Your task to perform on an android device: Go to CNN.com Image 0: 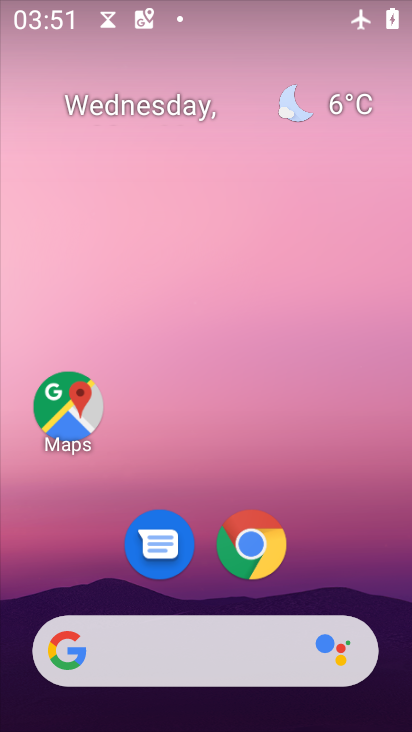
Step 0: click (250, 550)
Your task to perform on an android device: Go to CNN.com Image 1: 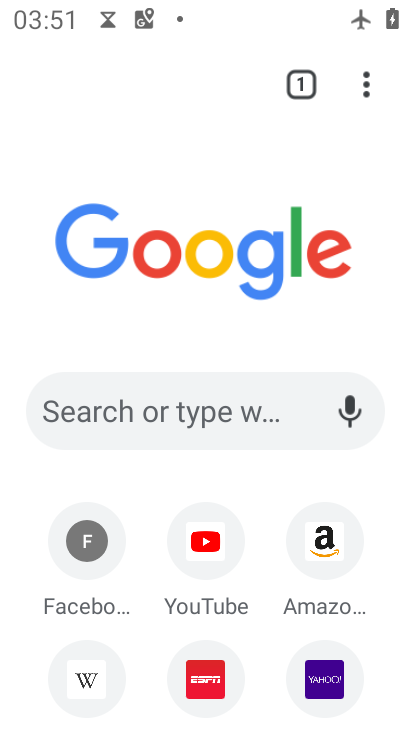
Step 1: click (162, 406)
Your task to perform on an android device: Go to CNN.com Image 2: 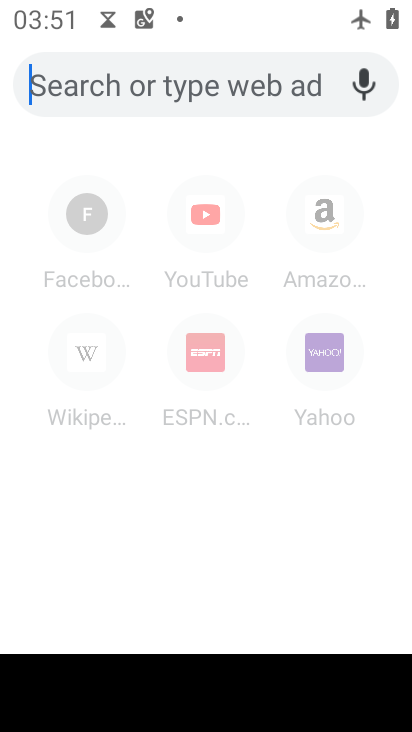
Step 2: type "CNN.com"
Your task to perform on an android device: Go to CNN.com Image 3: 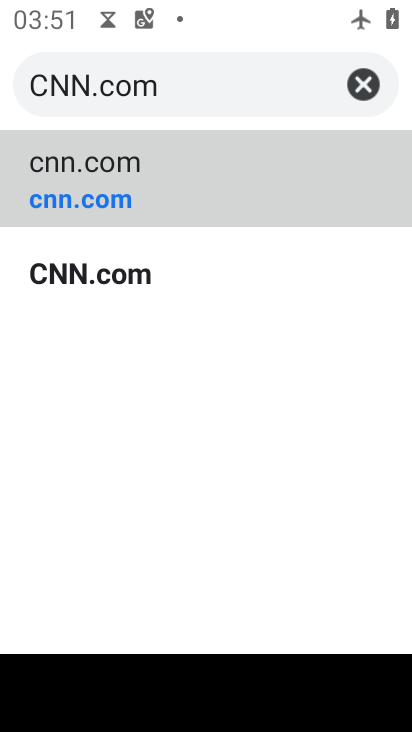
Step 3: click (48, 166)
Your task to perform on an android device: Go to CNN.com Image 4: 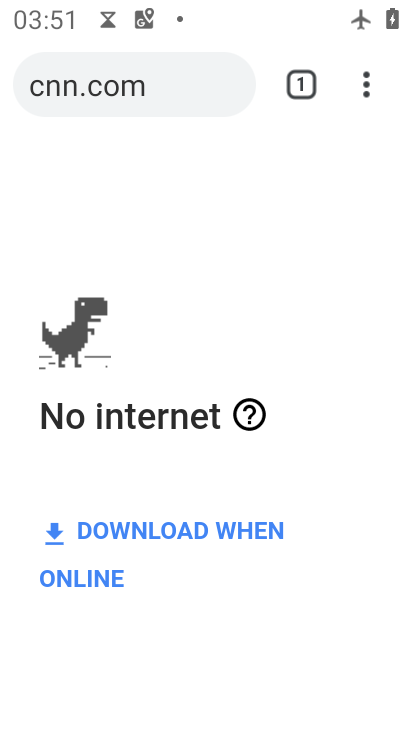
Step 4: task complete